Your task to perform on an android device: Go to privacy settings Image 0: 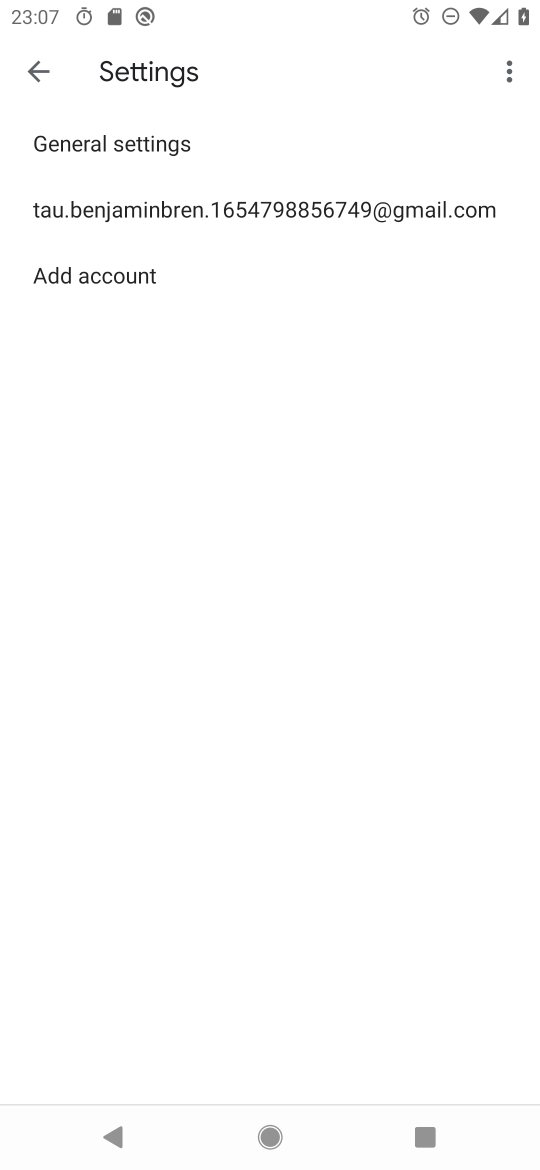
Step 0: press home button
Your task to perform on an android device: Go to privacy settings Image 1: 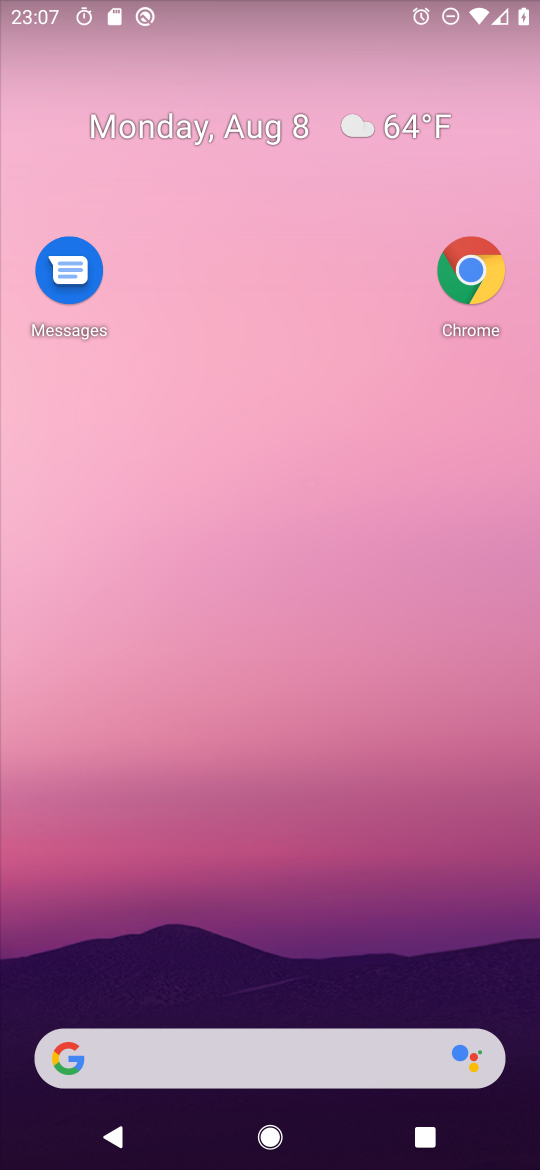
Step 1: drag from (322, 685) to (393, 37)
Your task to perform on an android device: Go to privacy settings Image 2: 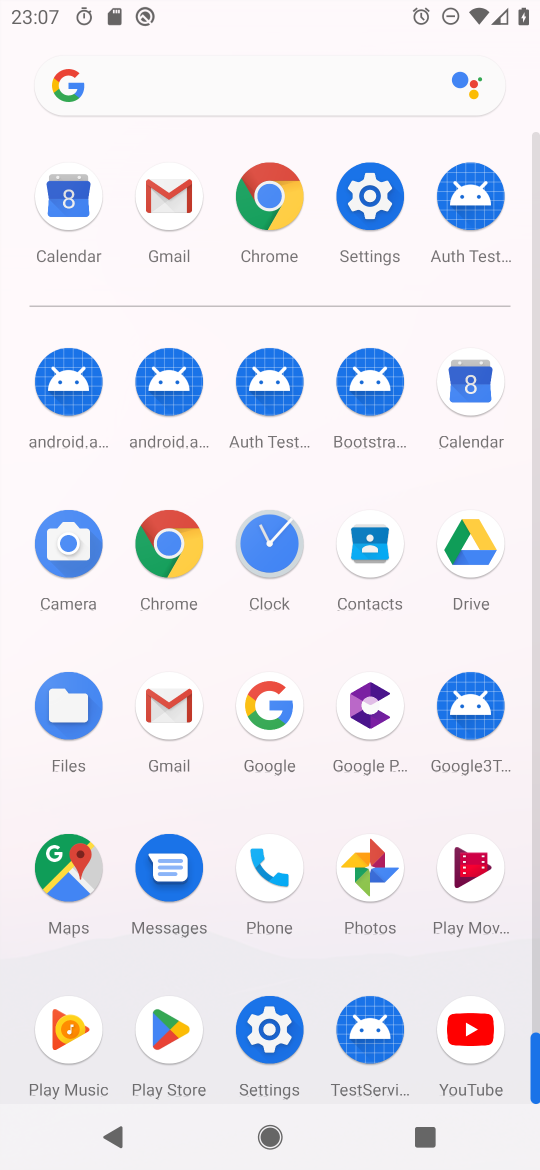
Step 2: click (379, 220)
Your task to perform on an android device: Go to privacy settings Image 3: 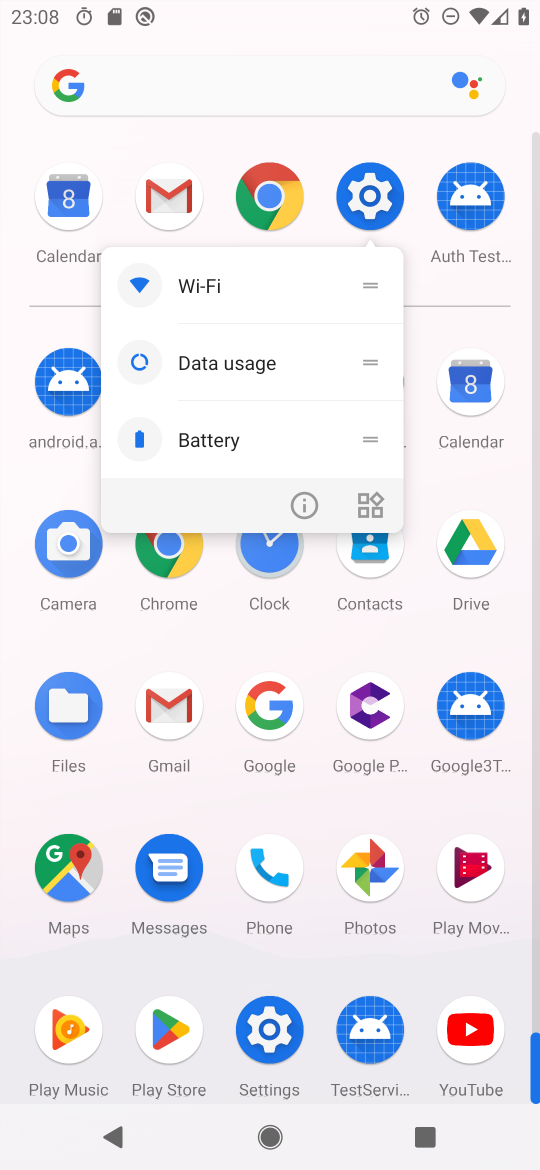
Step 3: click (312, 505)
Your task to perform on an android device: Go to privacy settings Image 4: 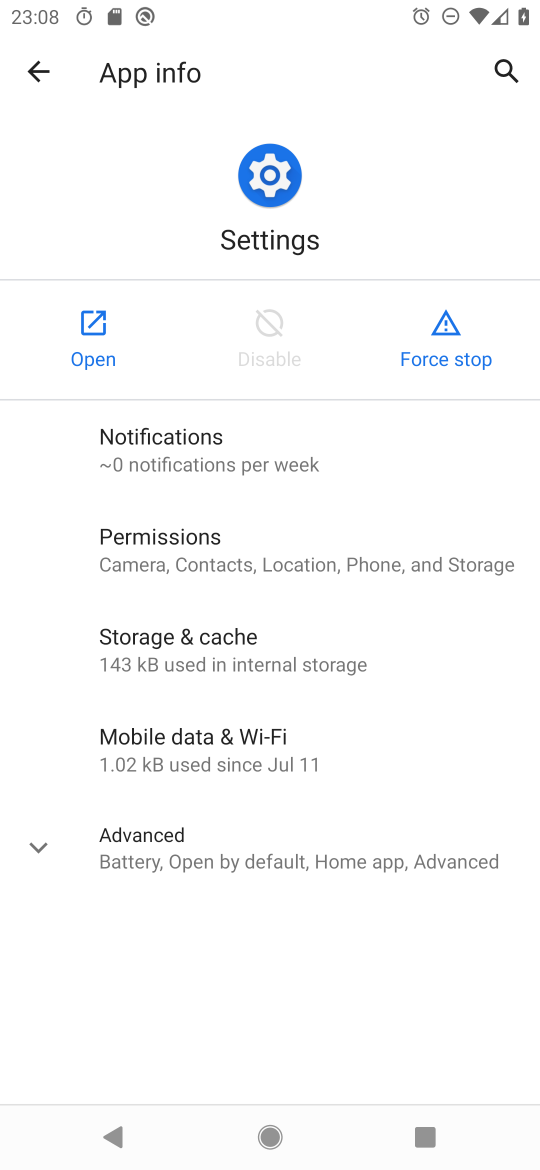
Step 4: click (50, 324)
Your task to perform on an android device: Go to privacy settings Image 5: 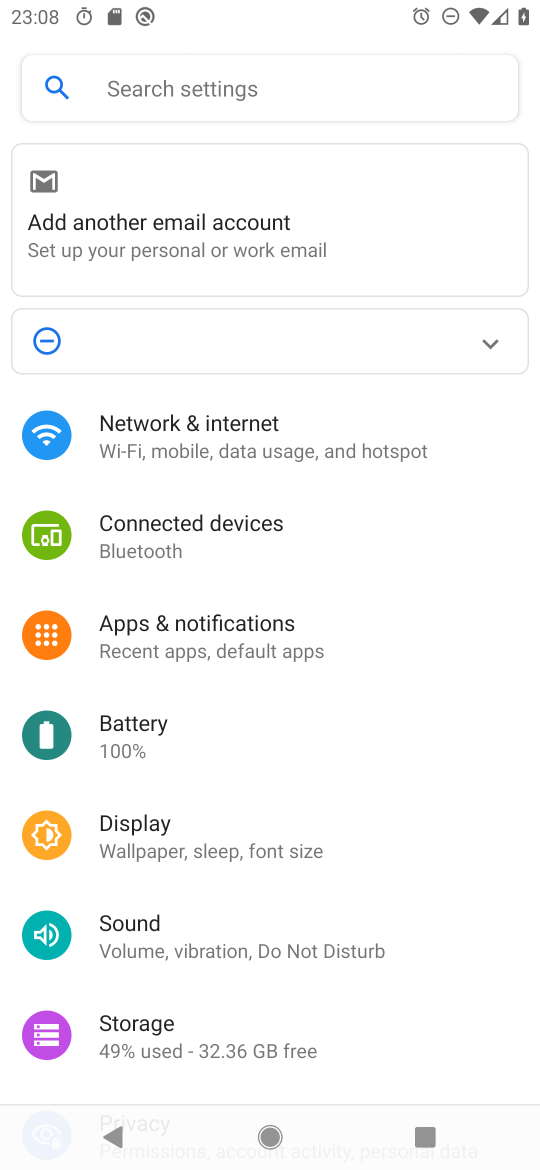
Step 5: drag from (195, 923) to (458, 333)
Your task to perform on an android device: Go to privacy settings Image 6: 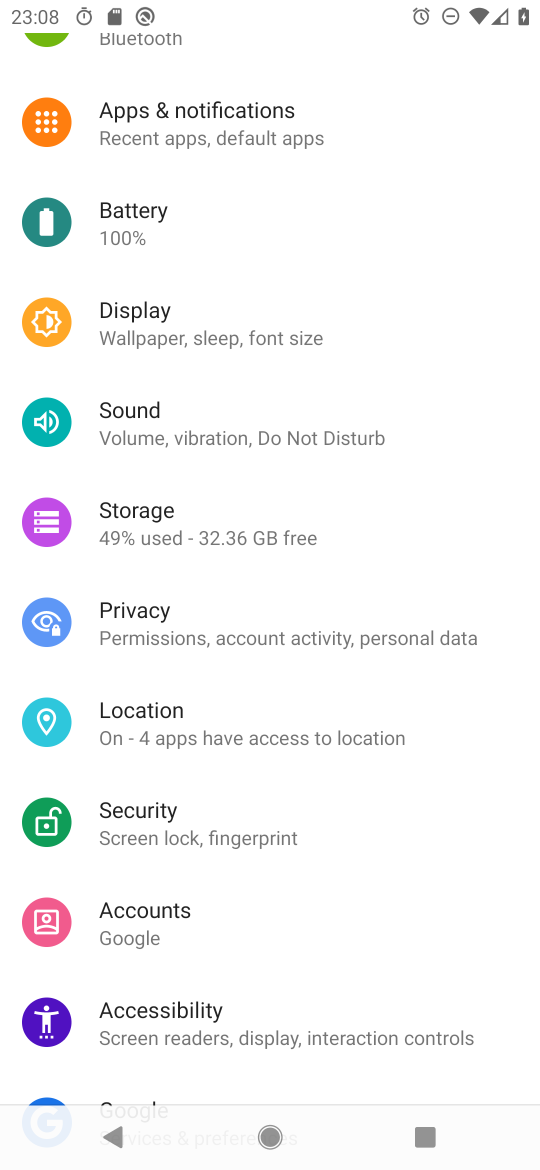
Step 6: click (160, 616)
Your task to perform on an android device: Go to privacy settings Image 7: 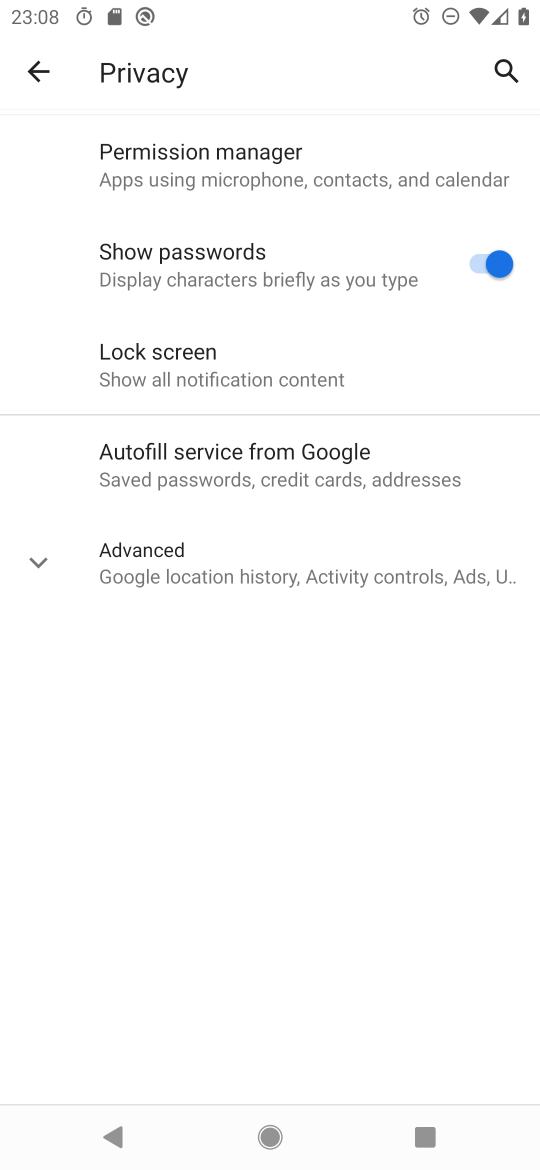
Step 7: task complete